Your task to perform on an android device: see creations saved in the google photos Image 0: 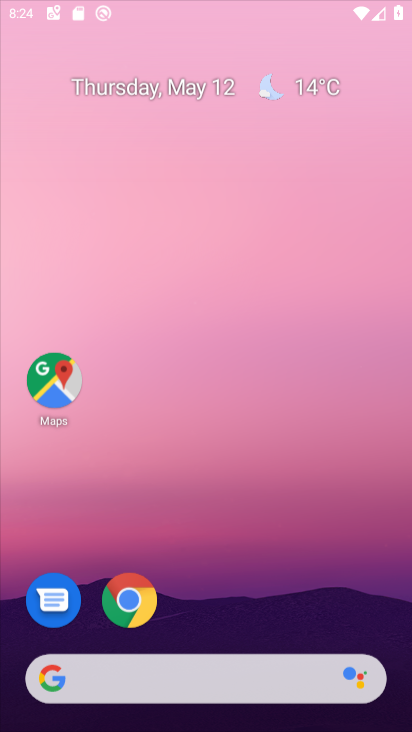
Step 0: click (65, 138)
Your task to perform on an android device: see creations saved in the google photos Image 1: 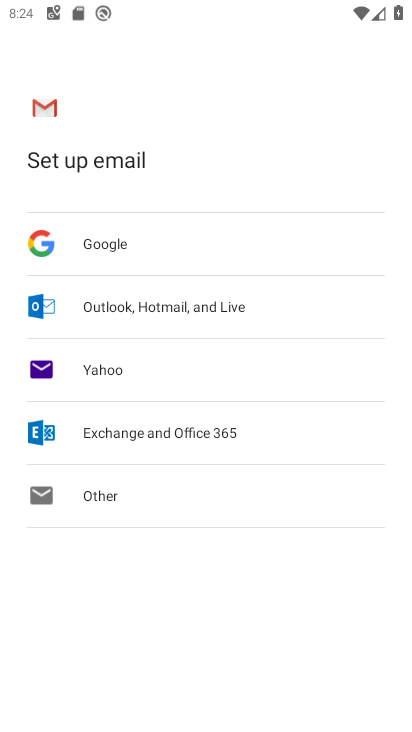
Step 1: press back button
Your task to perform on an android device: see creations saved in the google photos Image 2: 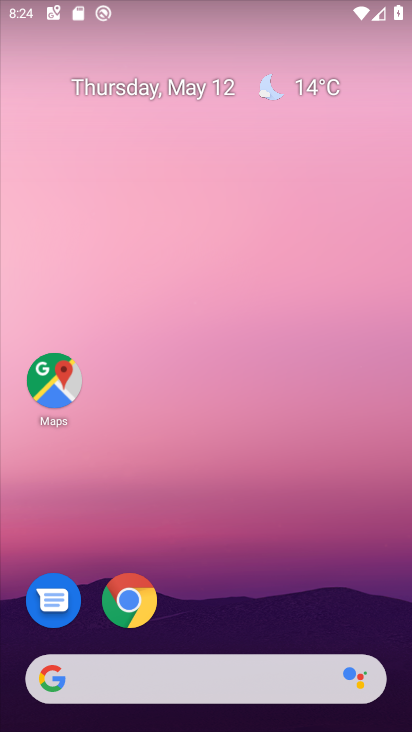
Step 2: drag from (309, 655) to (147, 36)
Your task to perform on an android device: see creations saved in the google photos Image 3: 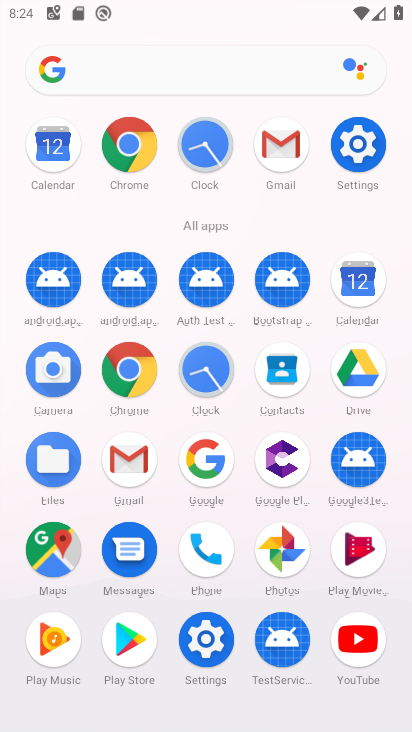
Step 3: click (280, 547)
Your task to perform on an android device: see creations saved in the google photos Image 4: 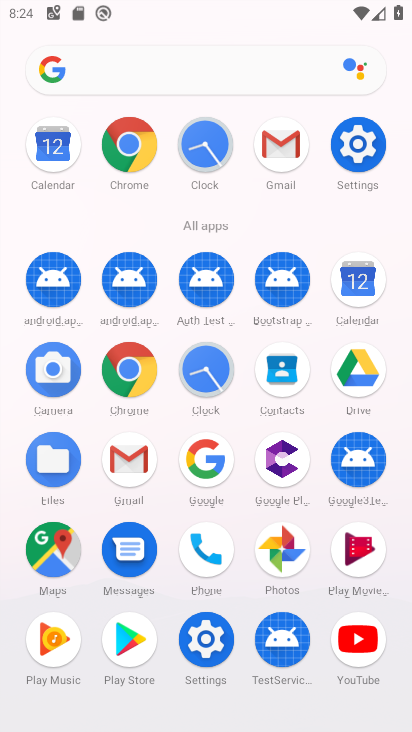
Step 4: click (286, 542)
Your task to perform on an android device: see creations saved in the google photos Image 5: 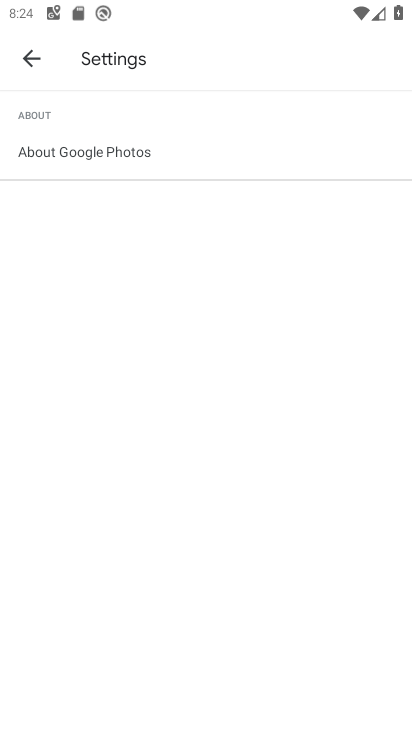
Step 5: click (26, 64)
Your task to perform on an android device: see creations saved in the google photos Image 6: 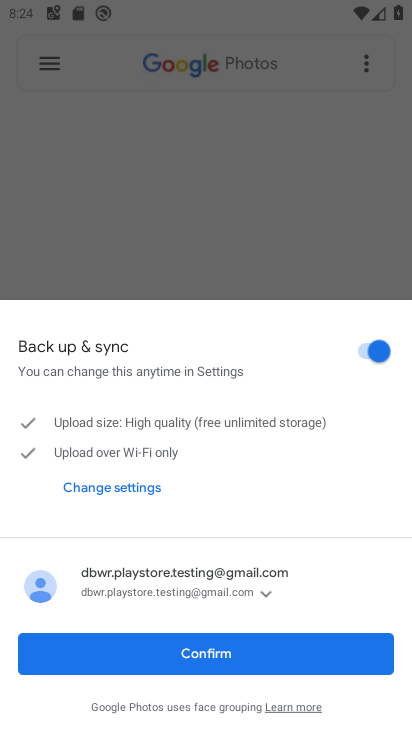
Step 6: click (231, 640)
Your task to perform on an android device: see creations saved in the google photos Image 7: 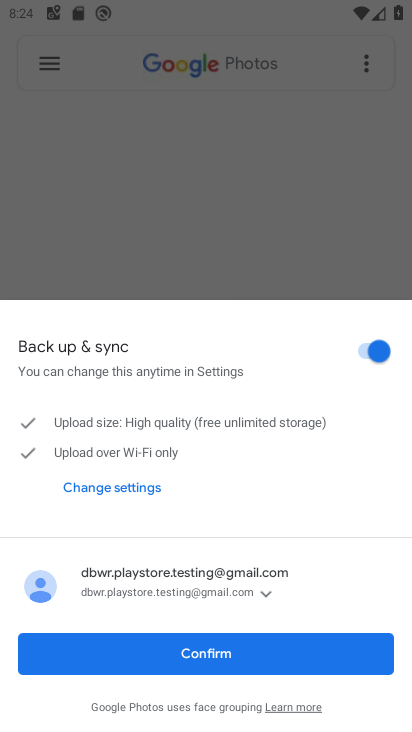
Step 7: click (230, 642)
Your task to perform on an android device: see creations saved in the google photos Image 8: 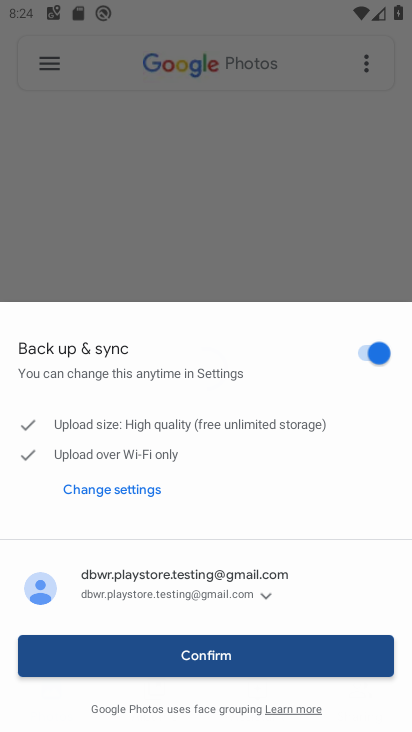
Step 8: click (229, 643)
Your task to perform on an android device: see creations saved in the google photos Image 9: 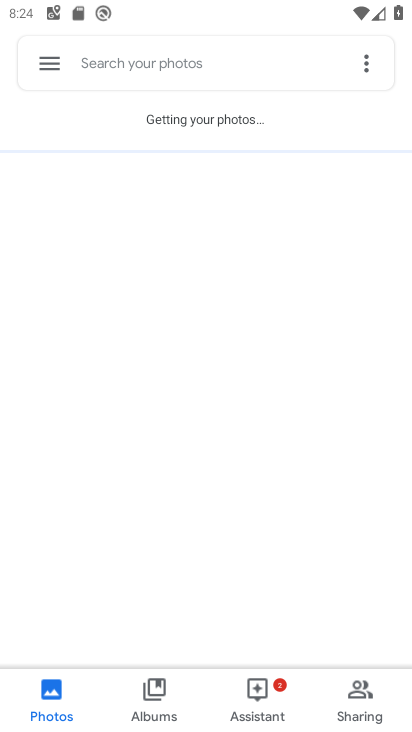
Step 9: task complete